Your task to perform on an android device: Open wifi settings Image 0: 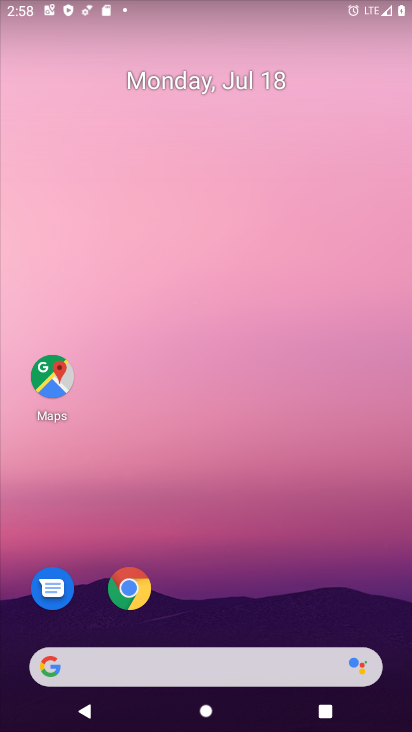
Step 0: drag from (79, 8) to (143, 521)
Your task to perform on an android device: Open wifi settings Image 1: 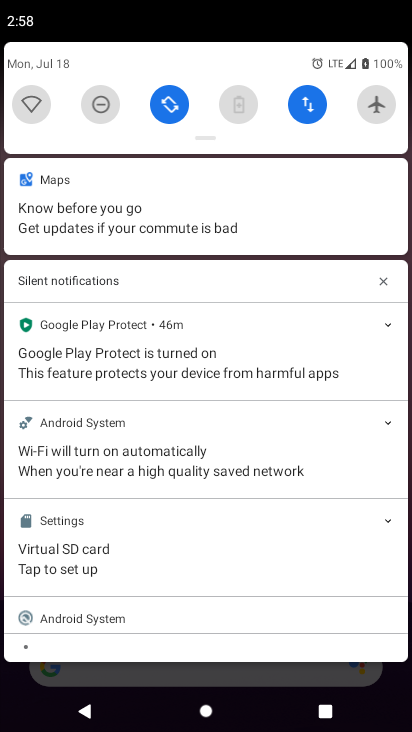
Step 1: click (23, 103)
Your task to perform on an android device: Open wifi settings Image 2: 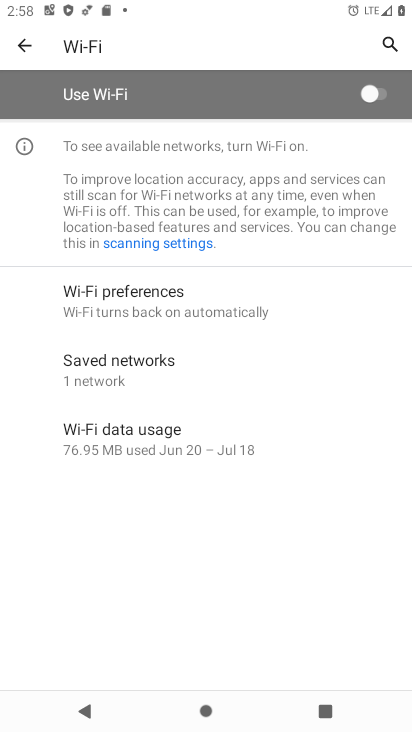
Step 2: task complete